Your task to perform on an android device: Open calendar and show me the first week of next month Image 0: 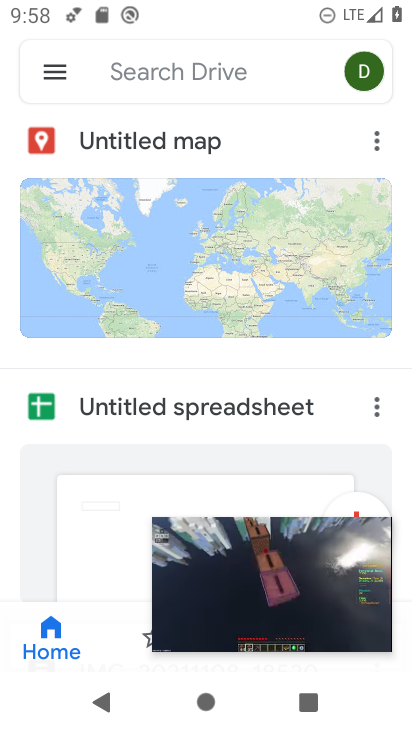
Step 0: click (365, 543)
Your task to perform on an android device: Open calendar and show me the first week of next month Image 1: 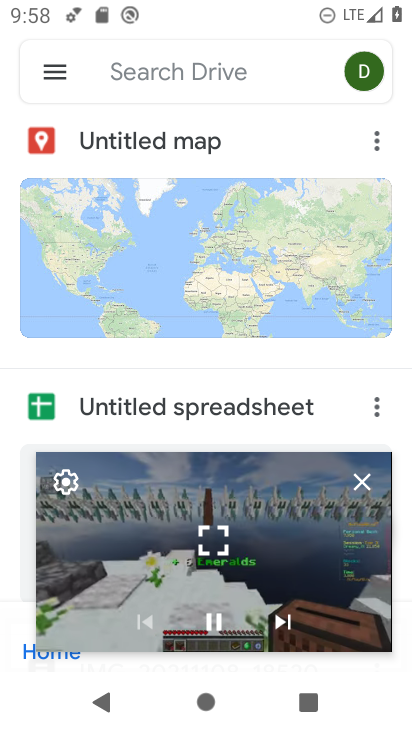
Step 1: click (358, 481)
Your task to perform on an android device: Open calendar and show me the first week of next month Image 2: 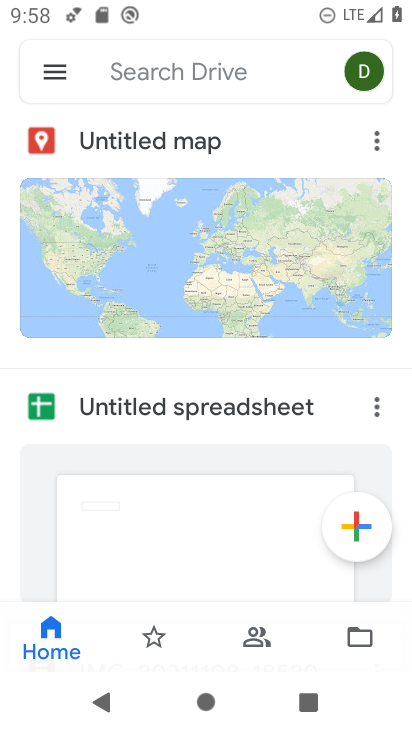
Step 2: press home button
Your task to perform on an android device: Open calendar and show me the first week of next month Image 3: 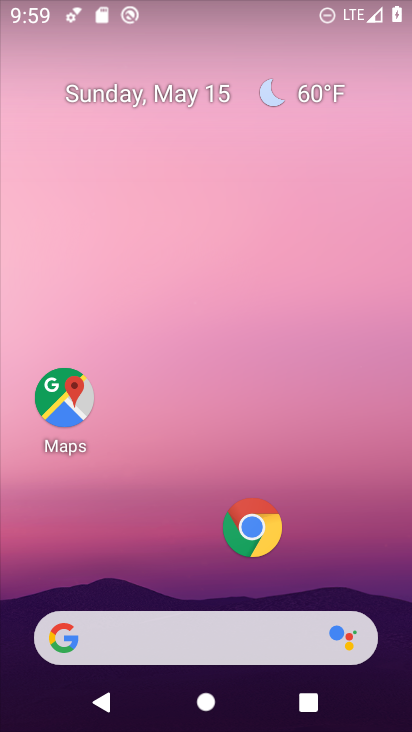
Step 3: drag from (194, 589) to (185, 92)
Your task to perform on an android device: Open calendar and show me the first week of next month Image 4: 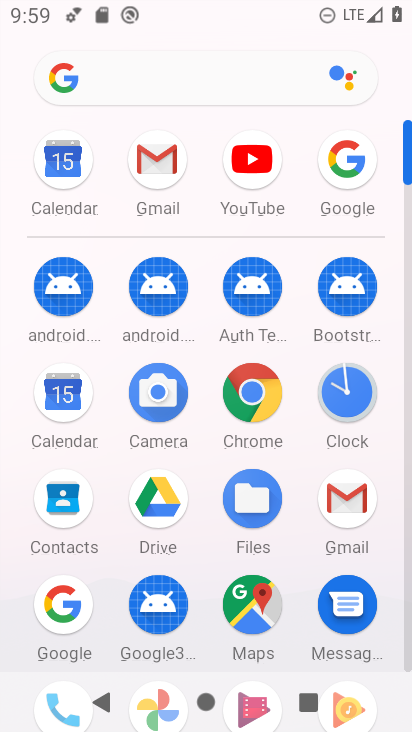
Step 4: click (59, 388)
Your task to perform on an android device: Open calendar and show me the first week of next month Image 5: 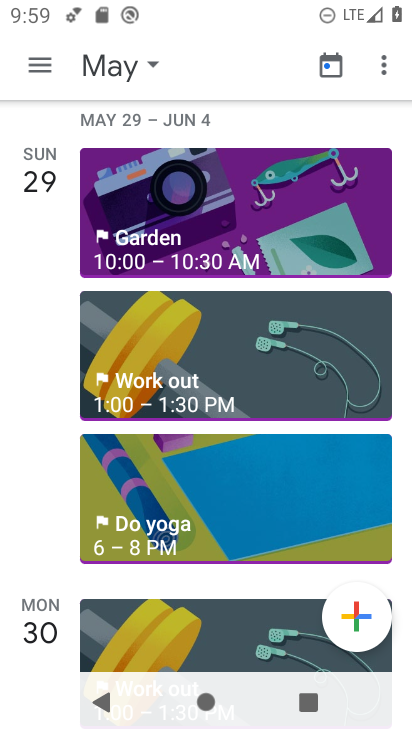
Step 5: click (38, 67)
Your task to perform on an android device: Open calendar and show me the first week of next month Image 6: 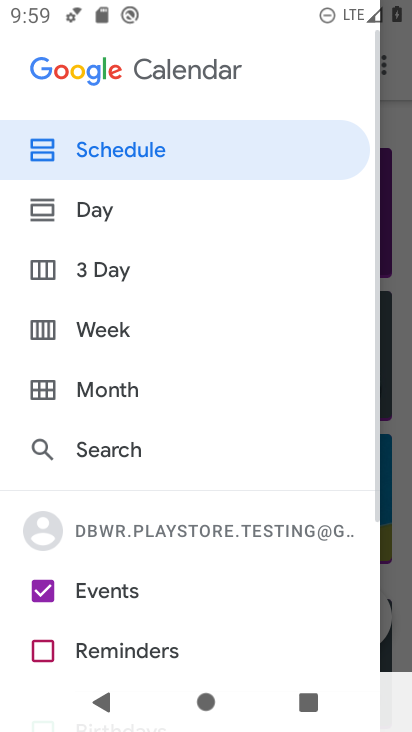
Step 6: click (96, 315)
Your task to perform on an android device: Open calendar and show me the first week of next month Image 7: 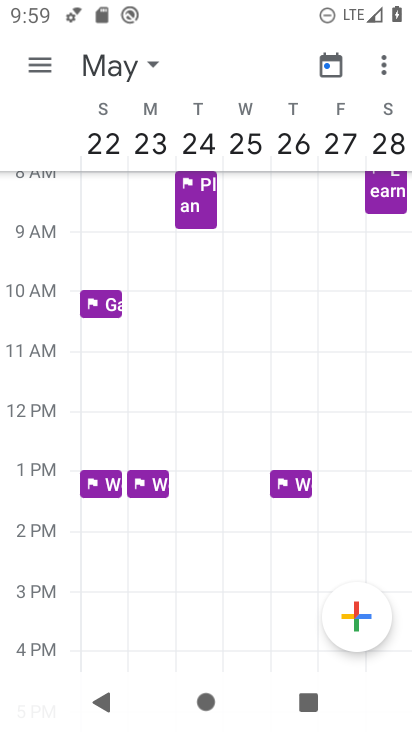
Step 7: drag from (382, 138) to (0, 220)
Your task to perform on an android device: Open calendar and show me the first week of next month Image 8: 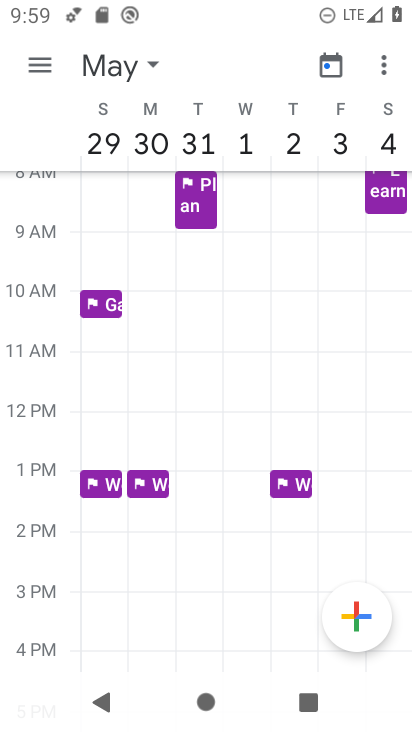
Step 8: click (101, 136)
Your task to perform on an android device: Open calendar and show me the first week of next month Image 9: 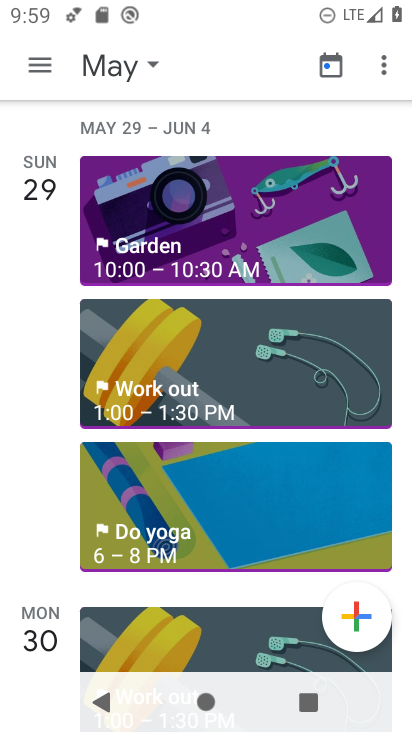
Step 9: task complete